Your task to perform on an android device: Search for "bose quietcomfort 35" on newegg, select the first entry, add it to the cart, then select checkout. Image 0: 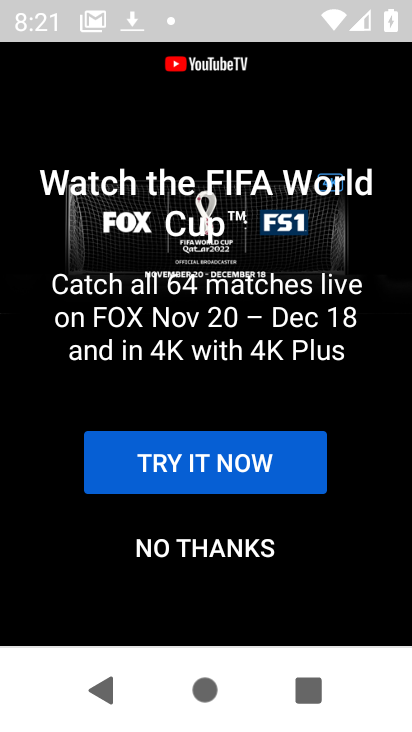
Step 0: press home button
Your task to perform on an android device: Search for "bose quietcomfort 35" on newegg, select the first entry, add it to the cart, then select checkout. Image 1: 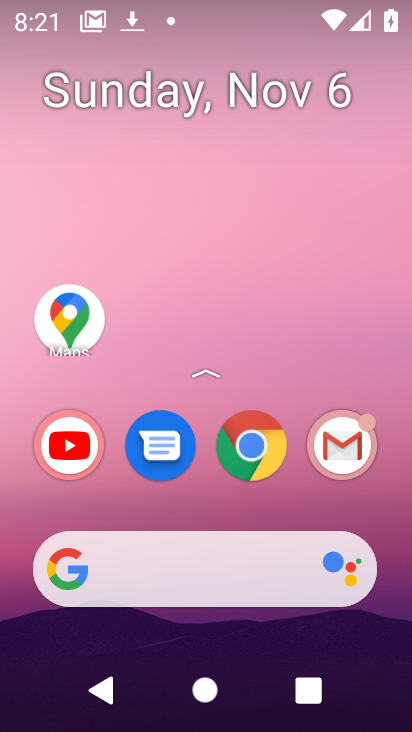
Step 1: click (241, 444)
Your task to perform on an android device: Search for "bose quietcomfort 35" on newegg, select the first entry, add it to the cart, then select checkout. Image 2: 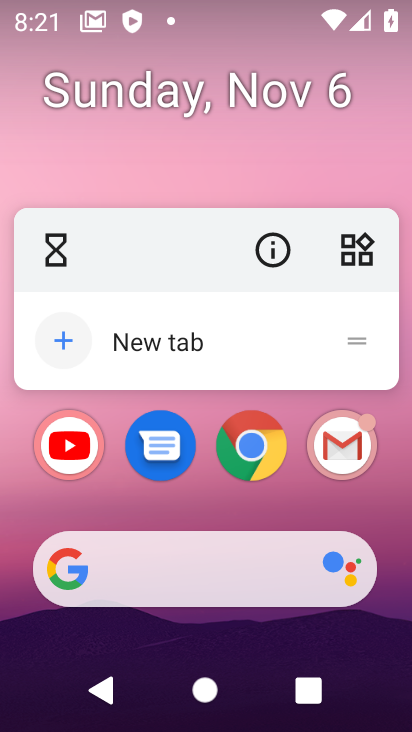
Step 2: click (249, 449)
Your task to perform on an android device: Search for "bose quietcomfort 35" on newegg, select the first entry, add it to the cart, then select checkout. Image 3: 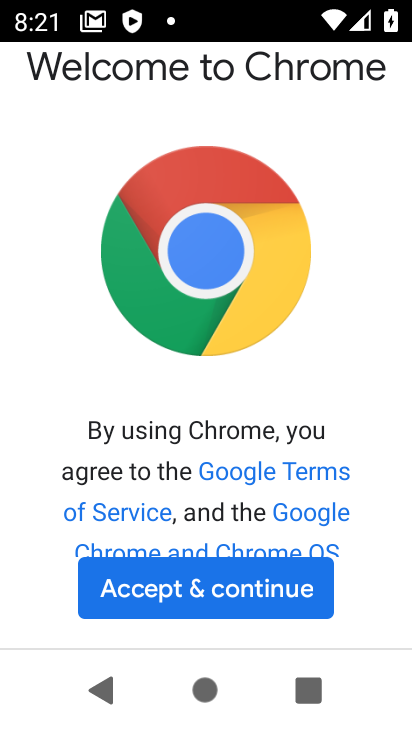
Step 3: click (264, 587)
Your task to perform on an android device: Search for "bose quietcomfort 35" on newegg, select the first entry, add it to the cart, then select checkout. Image 4: 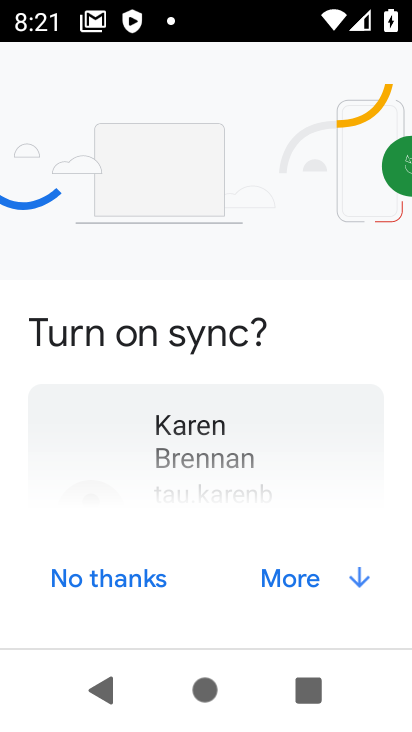
Step 4: click (289, 582)
Your task to perform on an android device: Search for "bose quietcomfort 35" on newegg, select the first entry, add it to the cart, then select checkout. Image 5: 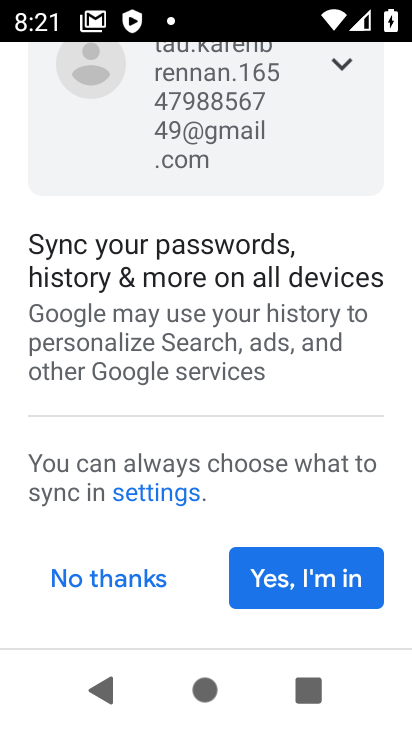
Step 5: click (321, 577)
Your task to perform on an android device: Search for "bose quietcomfort 35" on newegg, select the first entry, add it to the cart, then select checkout. Image 6: 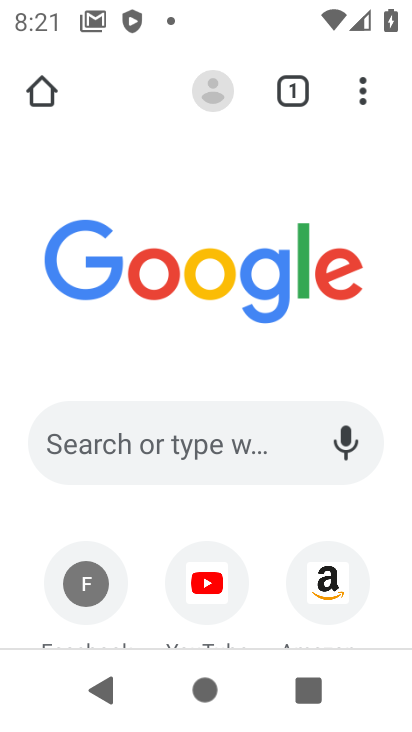
Step 6: click (191, 439)
Your task to perform on an android device: Search for "bose quietcomfort 35" on newegg, select the first entry, add it to the cart, then select checkout. Image 7: 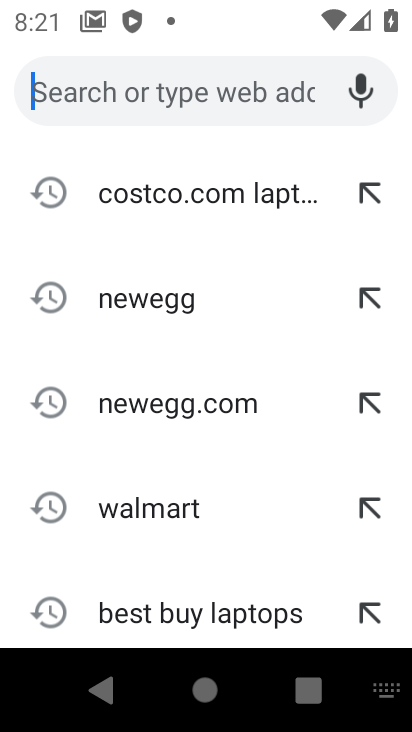
Step 7: click (127, 302)
Your task to perform on an android device: Search for "bose quietcomfort 35" on newegg, select the first entry, add it to the cart, then select checkout. Image 8: 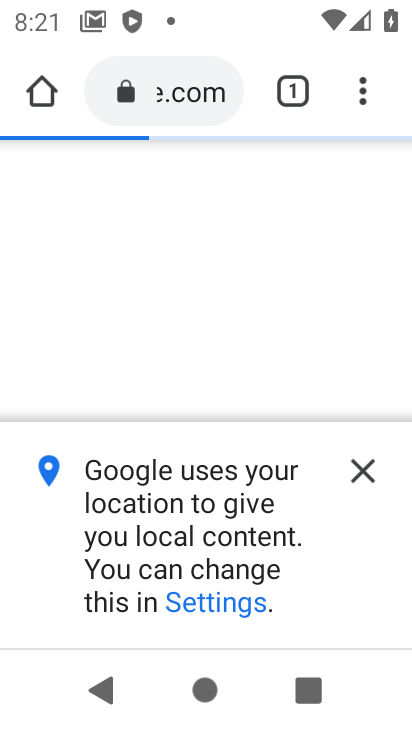
Step 8: click (363, 466)
Your task to perform on an android device: Search for "bose quietcomfort 35" on newegg, select the first entry, add it to the cart, then select checkout. Image 9: 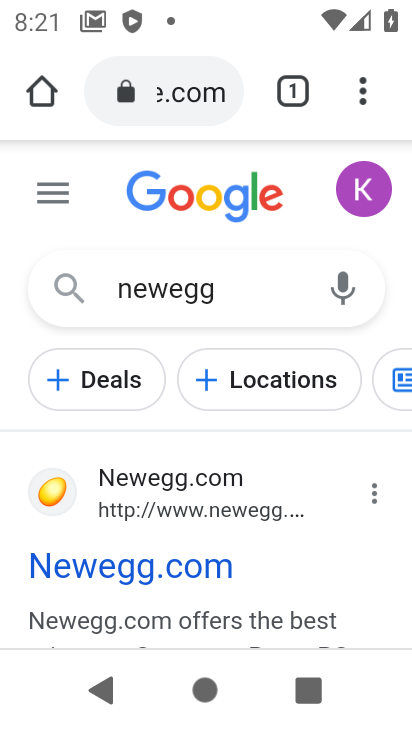
Step 9: drag from (214, 529) to (366, 238)
Your task to perform on an android device: Search for "bose quietcomfort 35" on newegg, select the first entry, add it to the cart, then select checkout. Image 10: 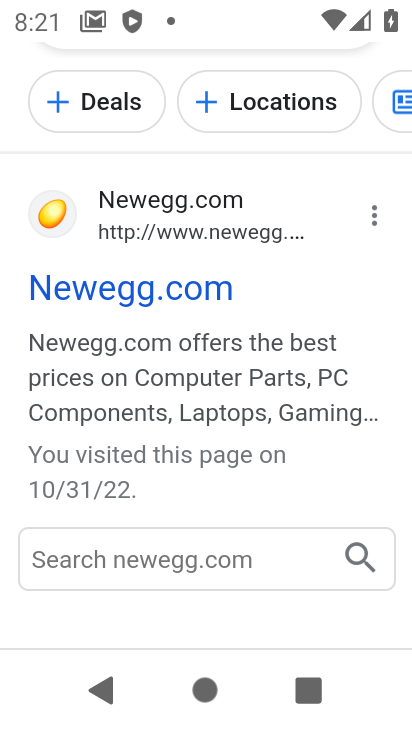
Step 10: click (128, 282)
Your task to perform on an android device: Search for "bose quietcomfort 35" on newegg, select the first entry, add it to the cart, then select checkout. Image 11: 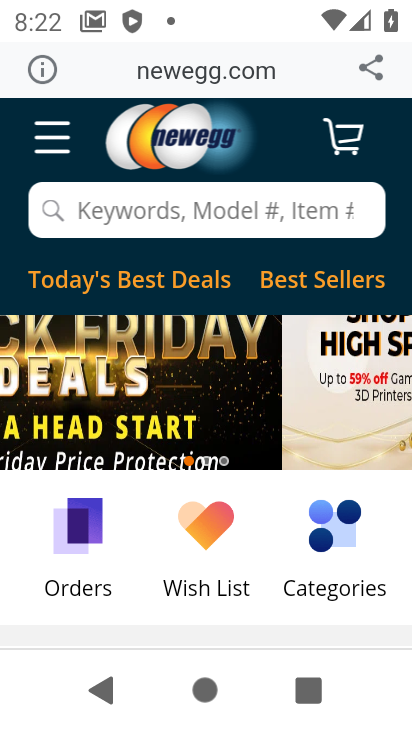
Step 11: click (184, 215)
Your task to perform on an android device: Search for "bose quietcomfort 35" on newegg, select the first entry, add it to the cart, then select checkout. Image 12: 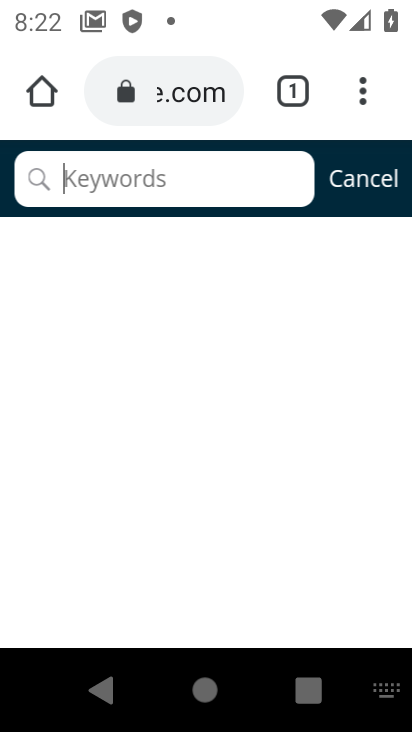
Step 12: type "bose quietcomfort 35"
Your task to perform on an android device: Search for "bose quietcomfort 35" on newegg, select the first entry, add it to the cart, then select checkout. Image 13: 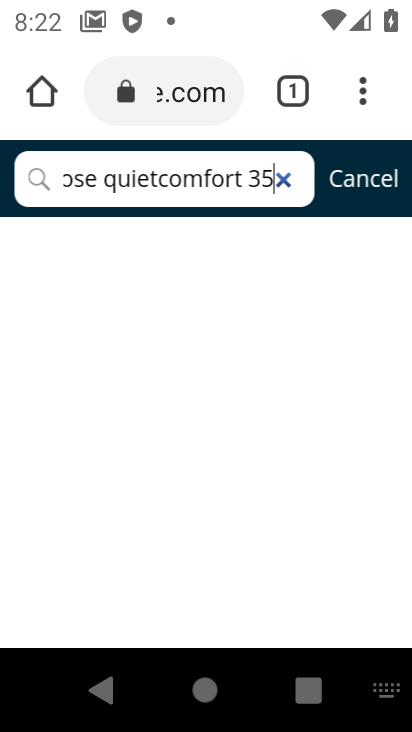
Step 13: press enter
Your task to perform on an android device: Search for "bose quietcomfort 35" on newegg, select the first entry, add it to the cart, then select checkout. Image 14: 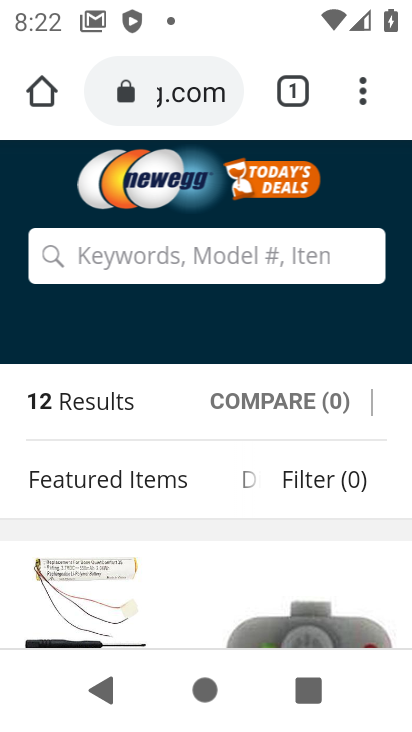
Step 14: drag from (175, 577) to (338, 250)
Your task to perform on an android device: Search for "bose quietcomfort 35" on newegg, select the first entry, add it to the cart, then select checkout. Image 15: 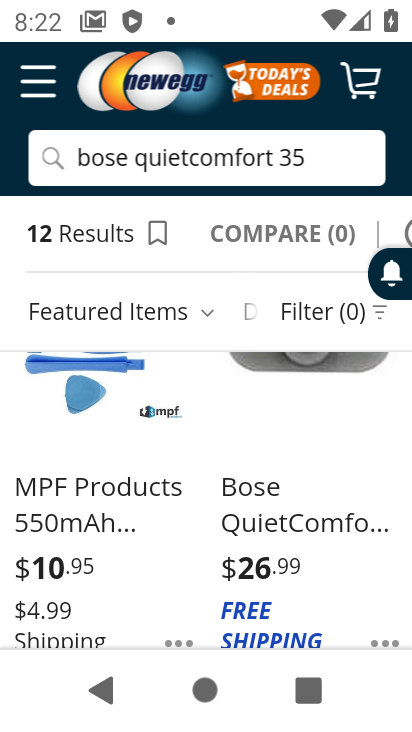
Step 15: drag from (152, 570) to (200, 467)
Your task to perform on an android device: Search for "bose quietcomfort 35" on newegg, select the first entry, add it to the cart, then select checkout. Image 16: 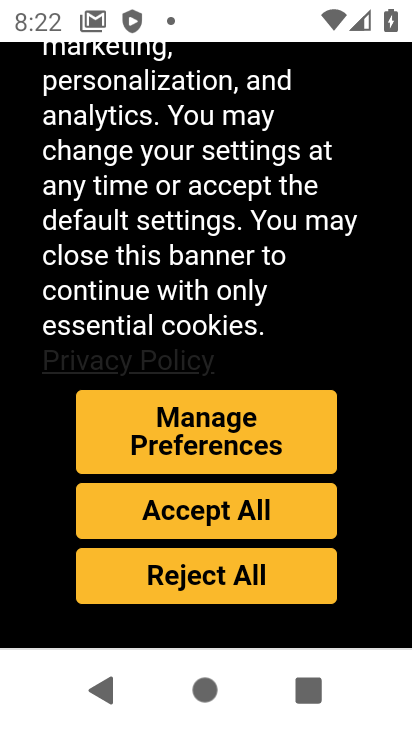
Step 16: click (211, 515)
Your task to perform on an android device: Search for "bose quietcomfort 35" on newegg, select the first entry, add it to the cart, then select checkout. Image 17: 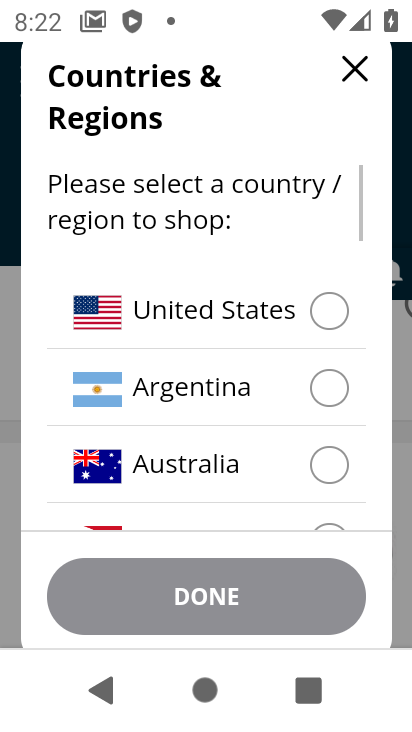
Step 17: click (356, 61)
Your task to perform on an android device: Search for "bose quietcomfort 35" on newegg, select the first entry, add it to the cart, then select checkout. Image 18: 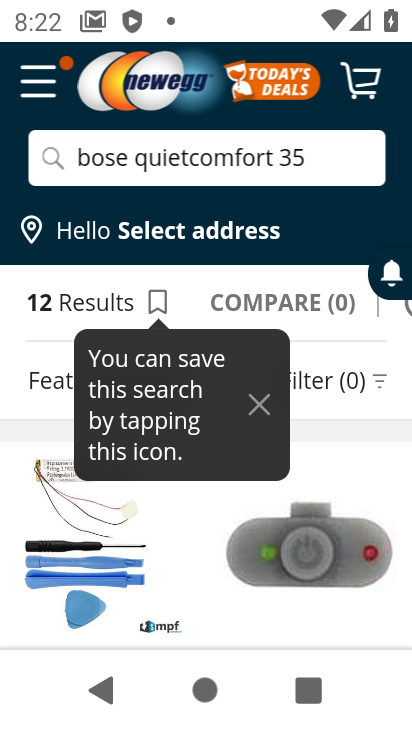
Step 18: task complete